Your task to perform on an android device: check the backup settings in the google photos Image 0: 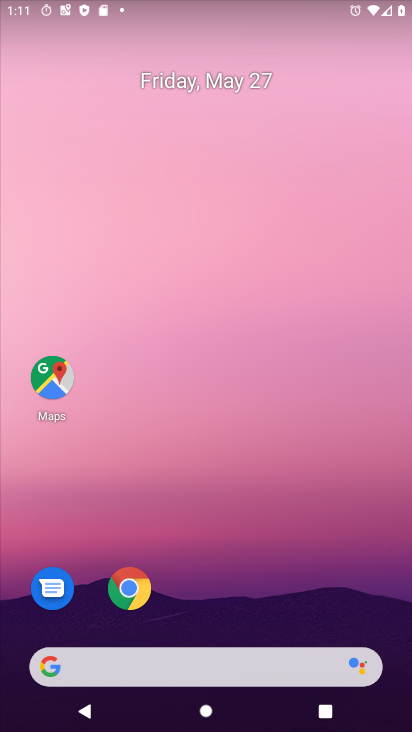
Step 0: press home button
Your task to perform on an android device: check the backup settings in the google photos Image 1: 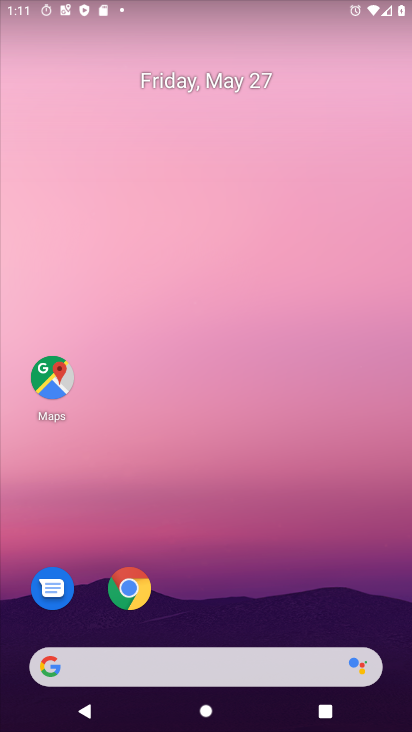
Step 1: drag from (214, 626) to (256, 61)
Your task to perform on an android device: check the backup settings in the google photos Image 2: 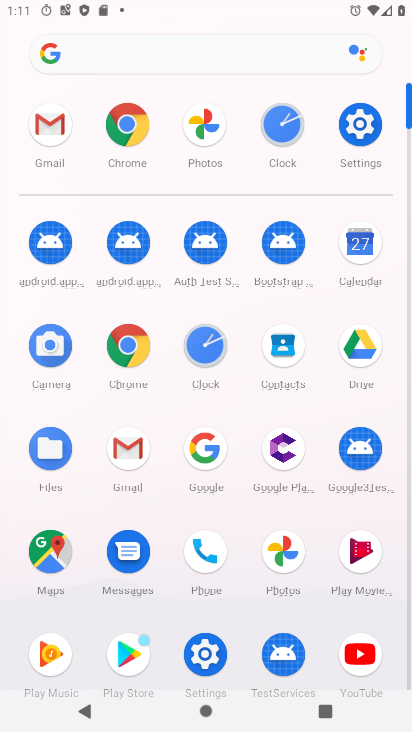
Step 2: click (358, 118)
Your task to perform on an android device: check the backup settings in the google photos Image 3: 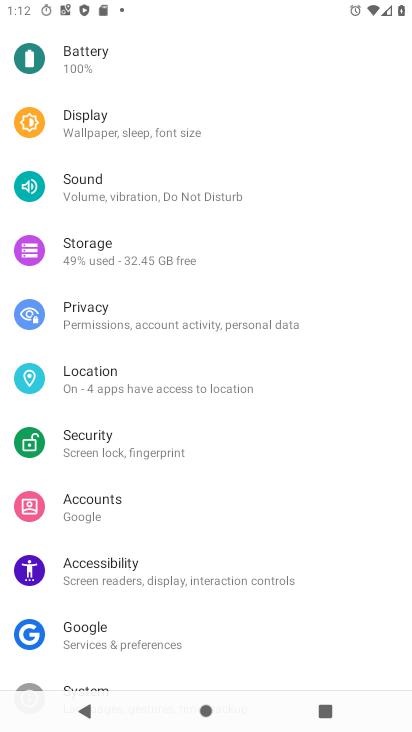
Step 3: press home button
Your task to perform on an android device: check the backup settings in the google photos Image 4: 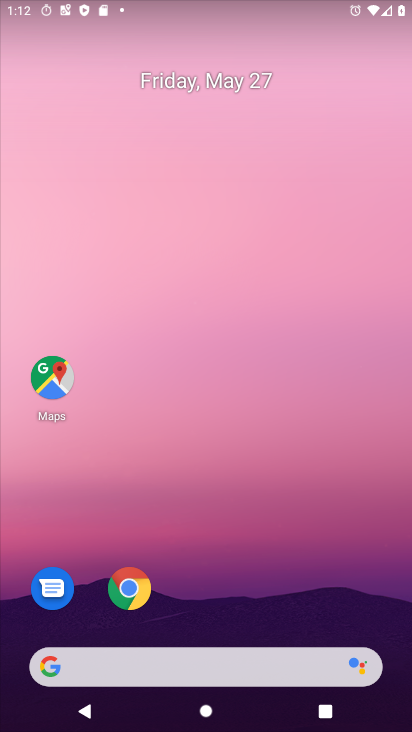
Step 4: drag from (216, 628) to (215, 109)
Your task to perform on an android device: check the backup settings in the google photos Image 5: 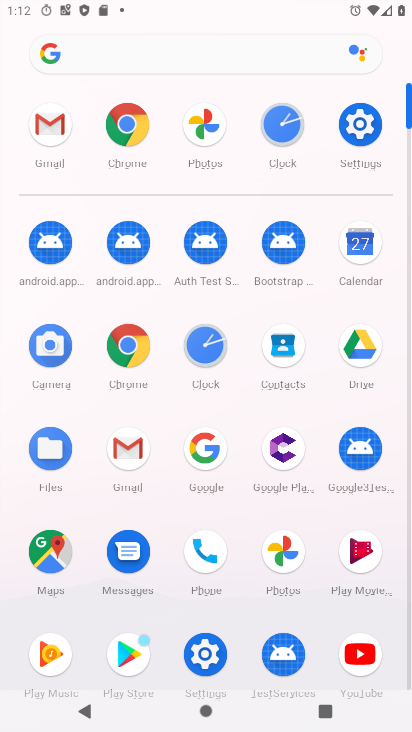
Step 5: click (279, 541)
Your task to perform on an android device: check the backup settings in the google photos Image 6: 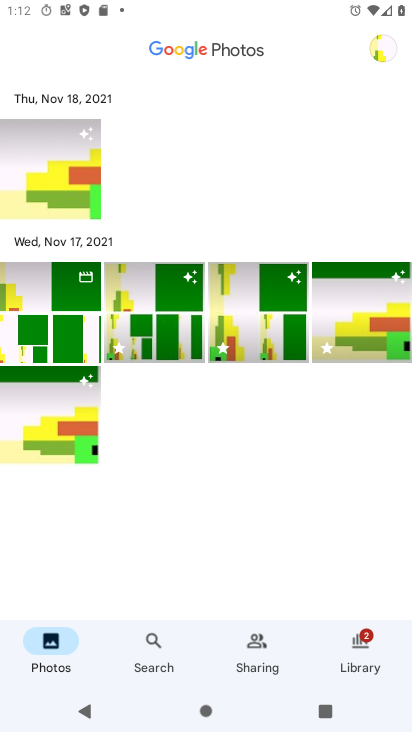
Step 6: click (387, 46)
Your task to perform on an android device: check the backup settings in the google photos Image 7: 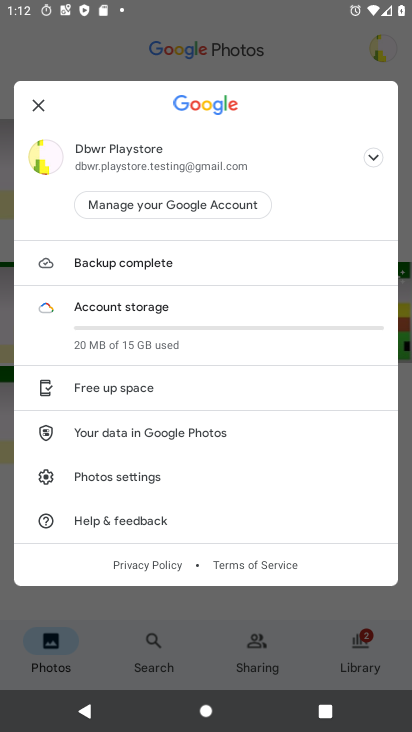
Step 7: click (164, 471)
Your task to perform on an android device: check the backup settings in the google photos Image 8: 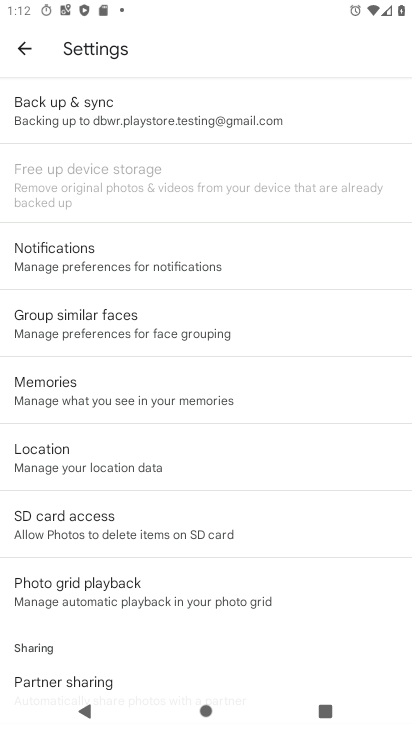
Step 8: click (134, 106)
Your task to perform on an android device: check the backup settings in the google photos Image 9: 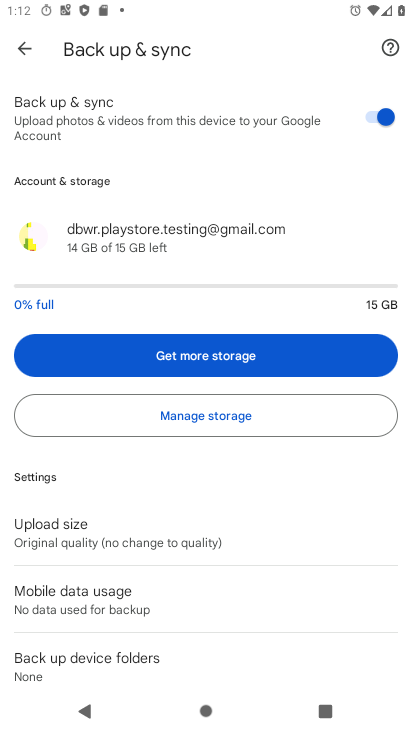
Step 9: task complete